Your task to perform on an android device: Go to Yahoo.com Image 0: 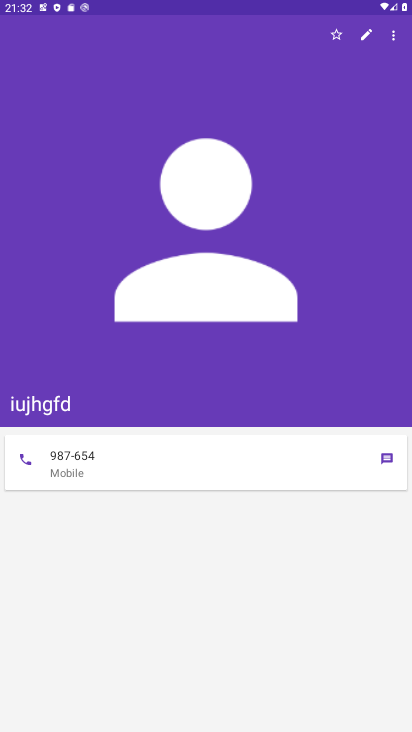
Step 0: press home button
Your task to perform on an android device: Go to Yahoo.com Image 1: 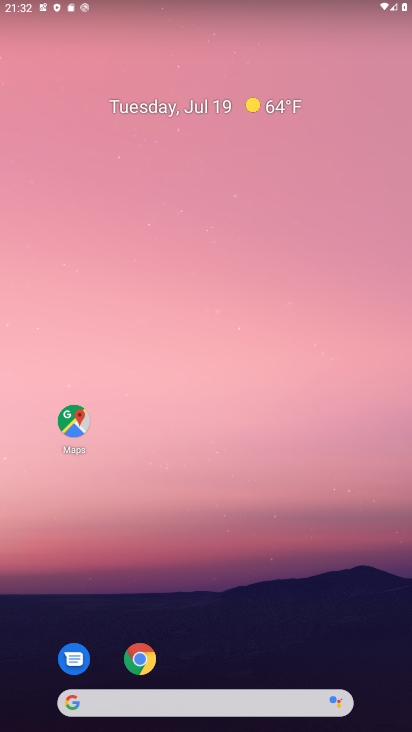
Step 1: click (136, 668)
Your task to perform on an android device: Go to Yahoo.com Image 2: 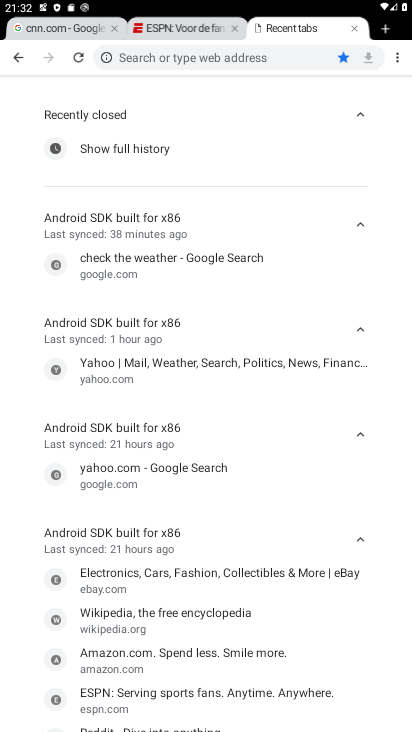
Step 2: click (382, 29)
Your task to perform on an android device: Go to Yahoo.com Image 3: 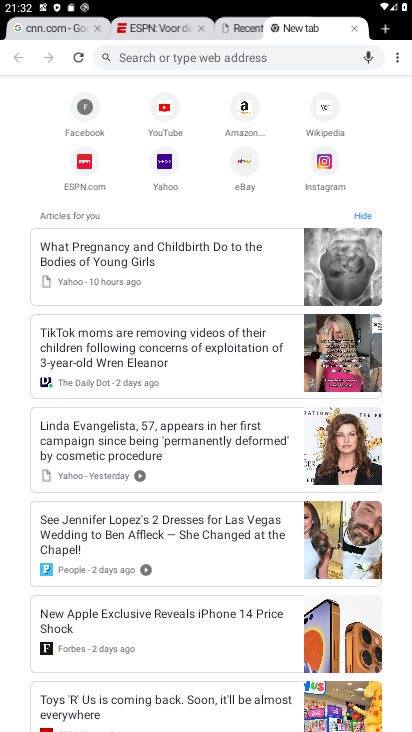
Step 3: click (174, 175)
Your task to perform on an android device: Go to Yahoo.com Image 4: 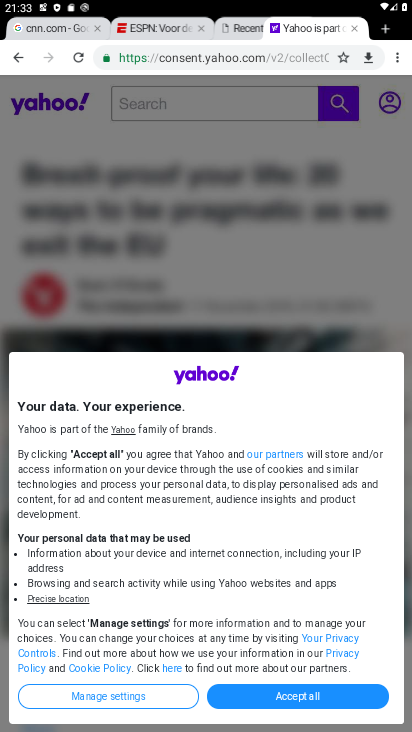
Step 4: task complete